Your task to perform on an android device: Open calendar and show me the fourth week of next month Image 0: 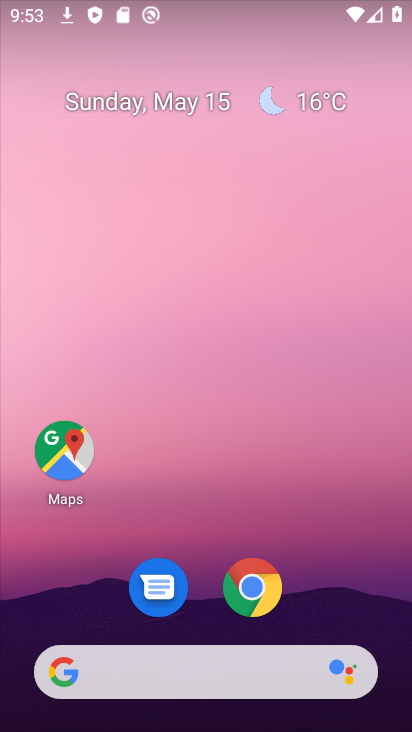
Step 0: click (281, 11)
Your task to perform on an android device: Open calendar and show me the fourth week of next month Image 1: 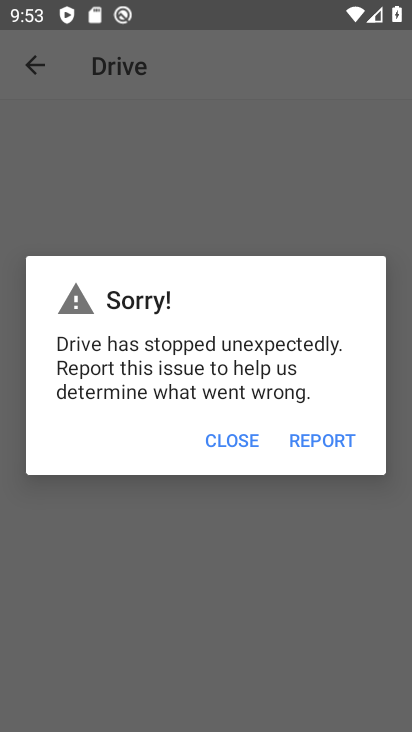
Step 1: press home button
Your task to perform on an android device: Open calendar and show me the fourth week of next month Image 2: 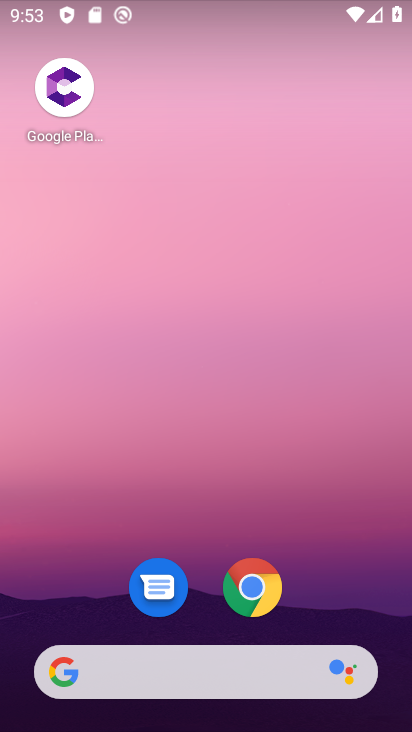
Step 2: drag from (368, 607) to (294, 19)
Your task to perform on an android device: Open calendar and show me the fourth week of next month Image 3: 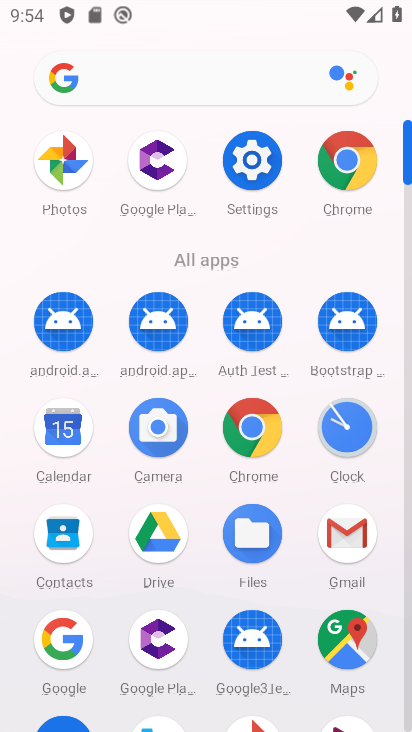
Step 3: drag from (13, 563) to (17, 227)
Your task to perform on an android device: Open calendar and show me the fourth week of next month Image 4: 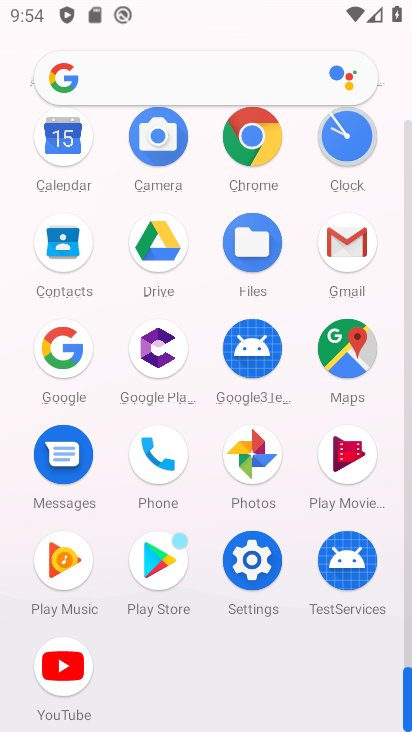
Step 4: click (58, 133)
Your task to perform on an android device: Open calendar and show me the fourth week of next month Image 5: 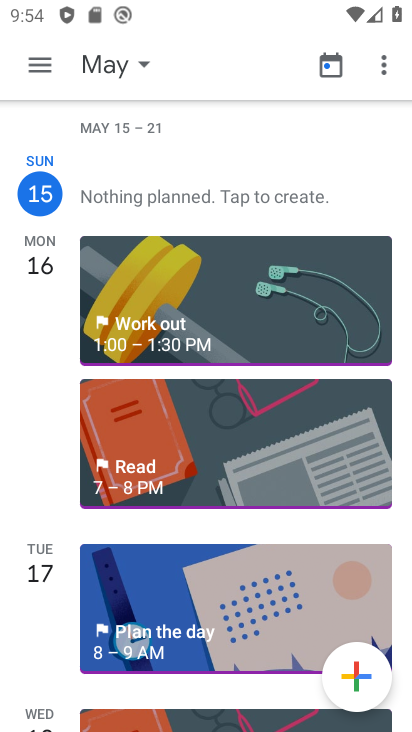
Step 5: click (43, 68)
Your task to perform on an android device: Open calendar and show me the fourth week of next month Image 6: 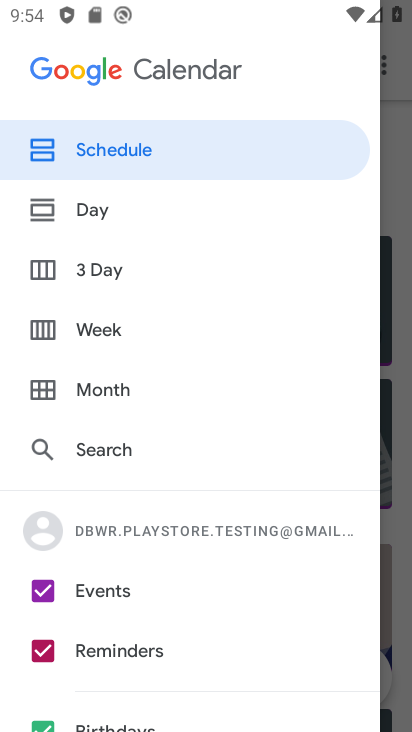
Step 6: click (124, 146)
Your task to perform on an android device: Open calendar and show me the fourth week of next month Image 7: 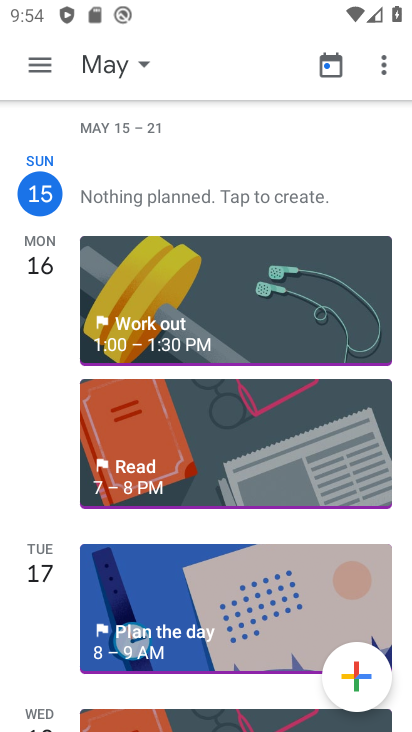
Step 7: click (133, 69)
Your task to perform on an android device: Open calendar and show me the fourth week of next month Image 8: 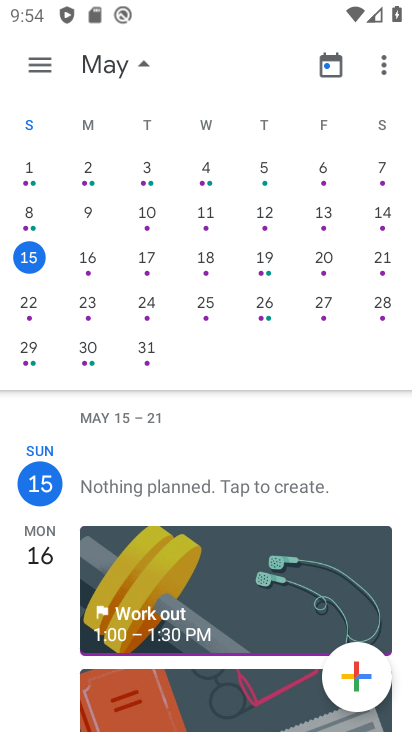
Step 8: drag from (388, 186) to (0, 153)
Your task to perform on an android device: Open calendar and show me the fourth week of next month Image 9: 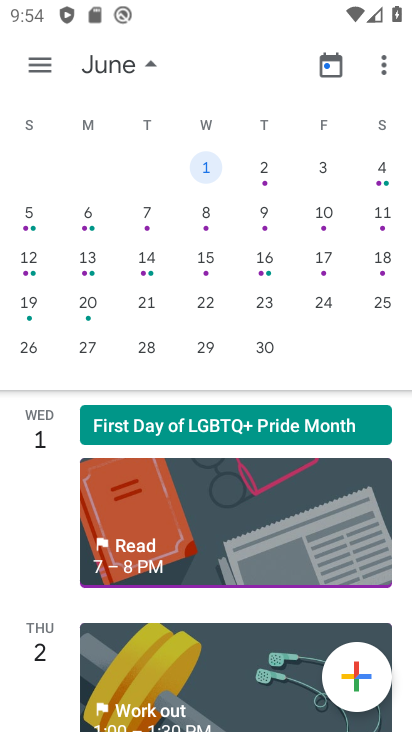
Step 9: click (24, 300)
Your task to perform on an android device: Open calendar and show me the fourth week of next month Image 10: 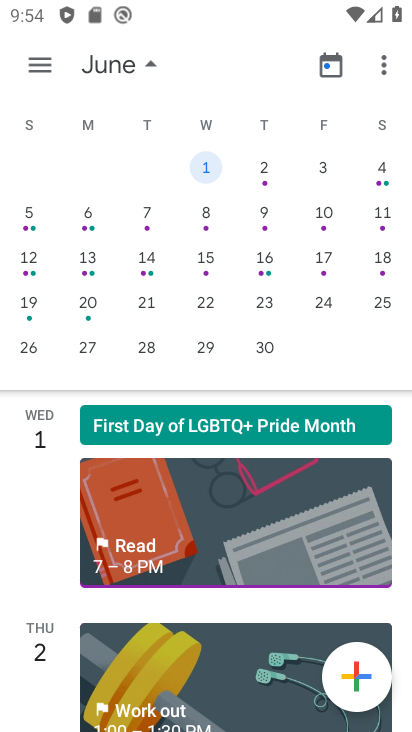
Step 10: click (30, 297)
Your task to perform on an android device: Open calendar and show me the fourth week of next month Image 11: 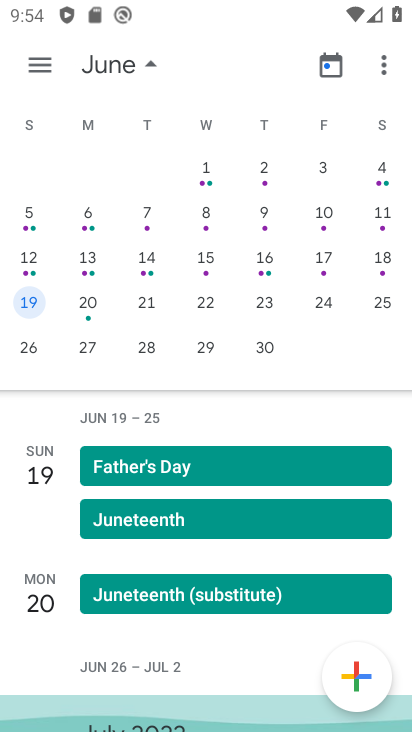
Step 11: click (38, 64)
Your task to perform on an android device: Open calendar and show me the fourth week of next month Image 12: 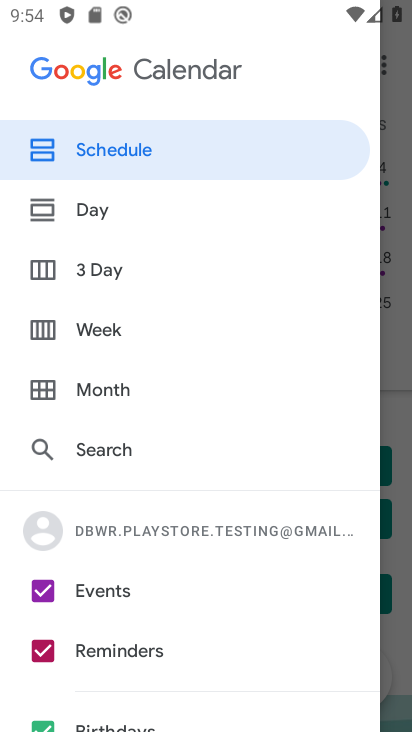
Step 12: click (107, 320)
Your task to perform on an android device: Open calendar and show me the fourth week of next month Image 13: 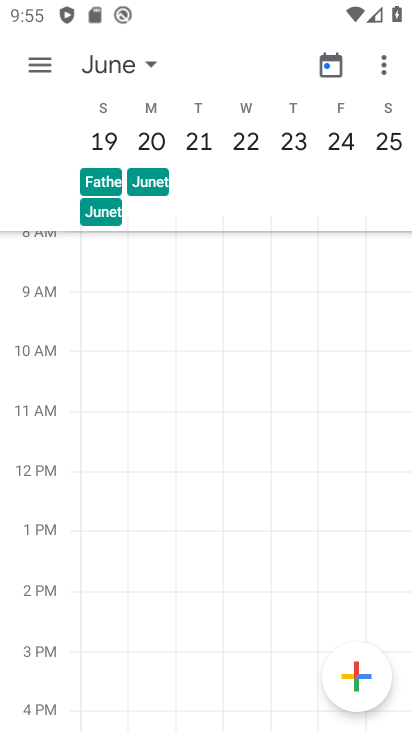
Step 13: task complete